Your task to perform on an android device: set default search engine in the chrome app Image 0: 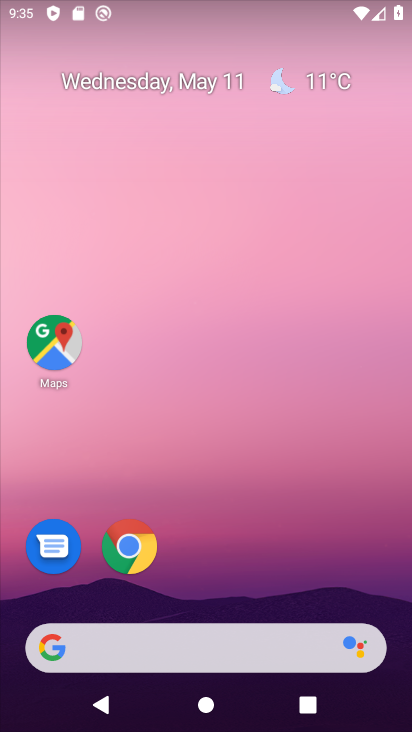
Step 0: click (138, 536)
Your task to perform on an android device: set default search engine in the chrome app Image 1: 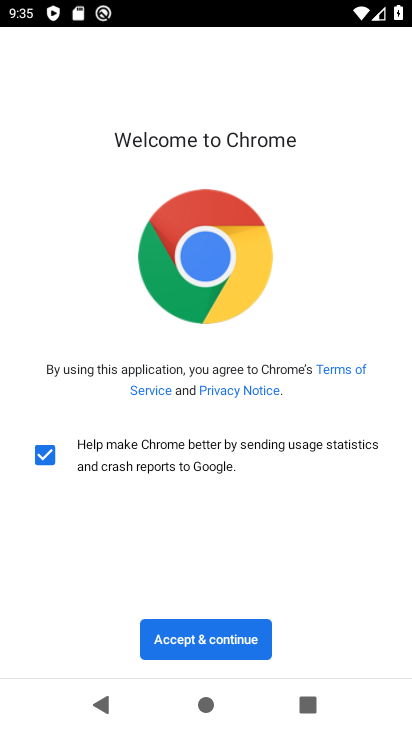
Step 1: click (196, 650)
Your task to perform on an android device: set default search engine in the chrome app Image 2: 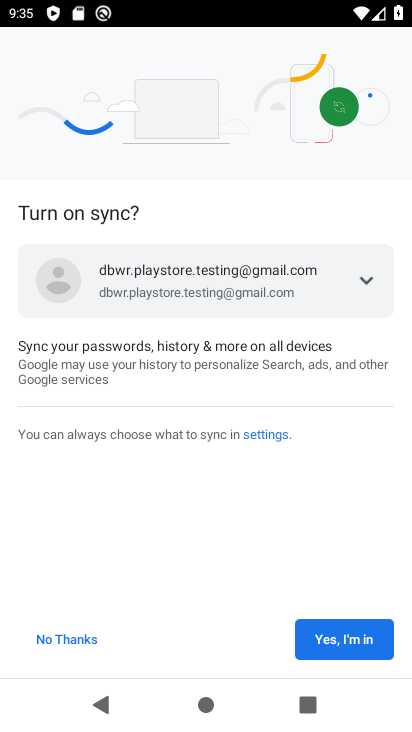
Step 2: click (334, 638)
Your task to perform on an android device: set default search engine in the chrome app Image 3: 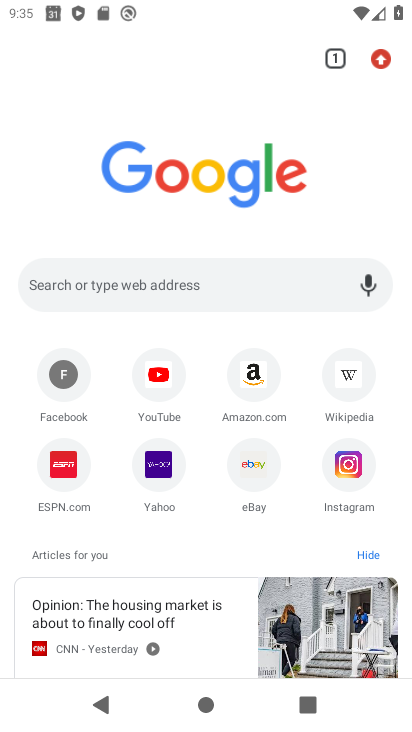
Step 3: drag from (379, 58) to (211, 532)
Your task to perform on an android device: set default search engine in the chrome app Image 4: 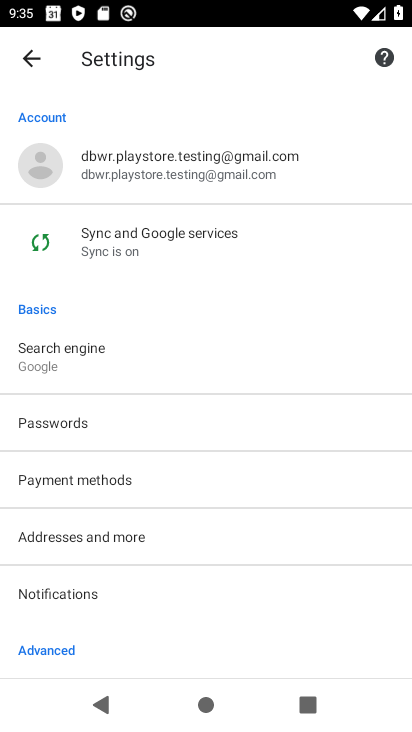
Step 4: click (102, 359)
Your task to perform on an android device: set default search engine in the chrome app Image 5: 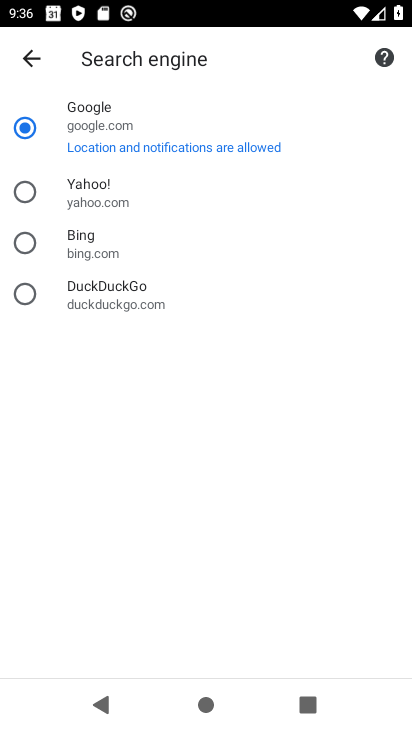
Step 5: click (75, 196)
Your task to perform on an android device: set default search engine in the chrome app Image 6: 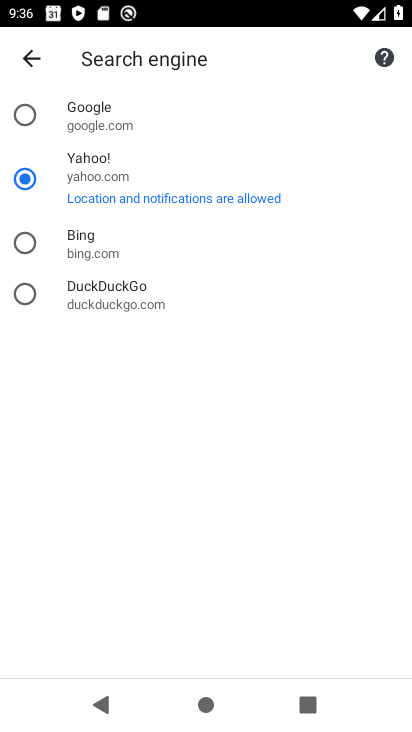
Step 6: task complete